Your task to perform on an android device: uninstall "Facebook" Image 0: 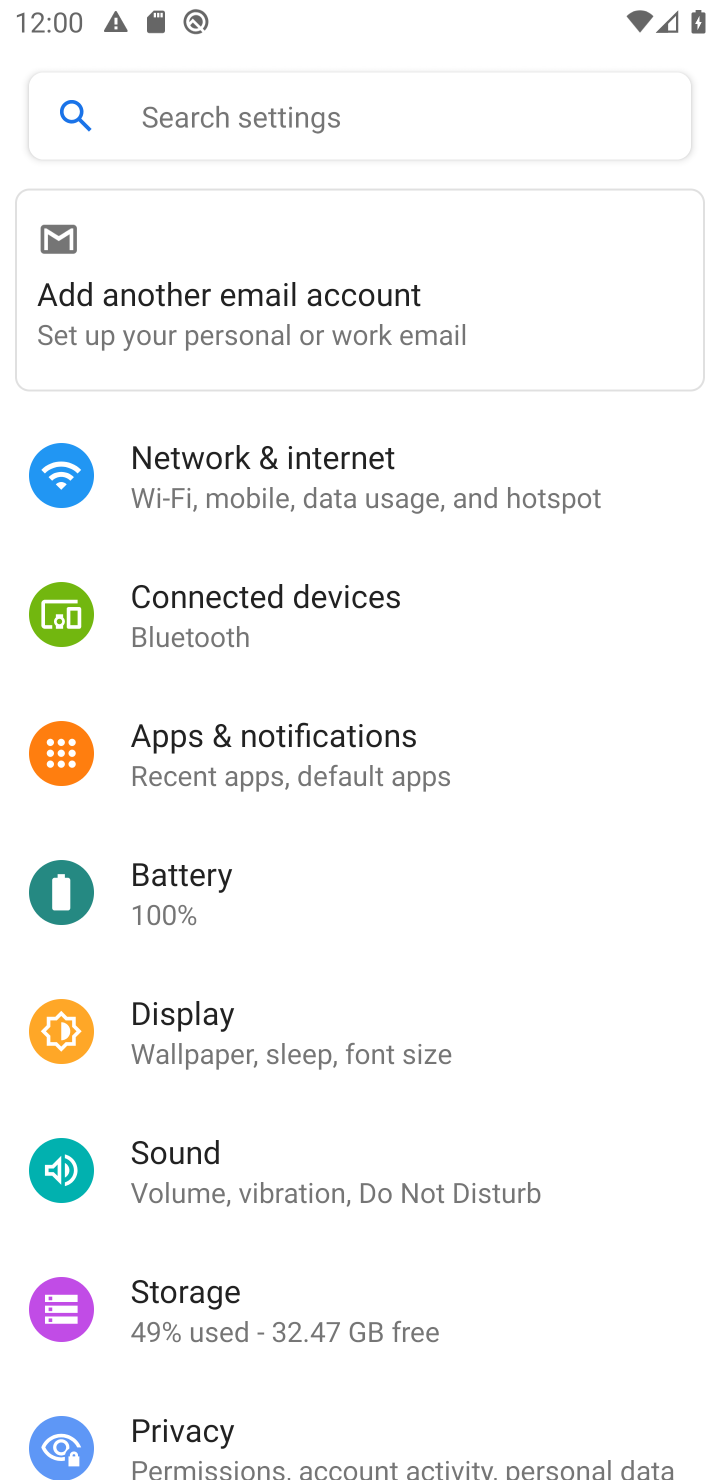
Step 0: press home button
Your task to perform on an android device: uninstall "Facebook" Image 1: 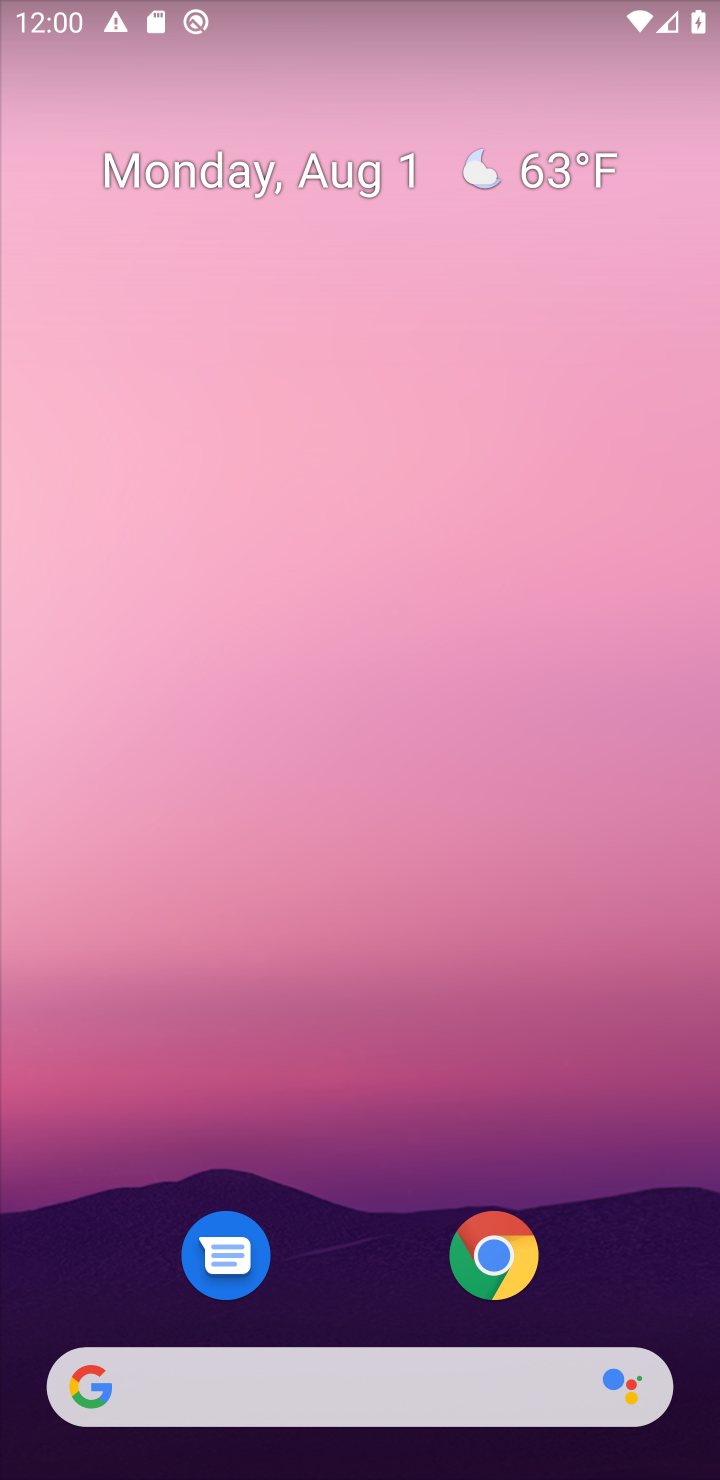
Step 1: drag from (534, 1066) to (485, 1)
Your task to perform on an android device: uninstall "Facebook" Image 2: 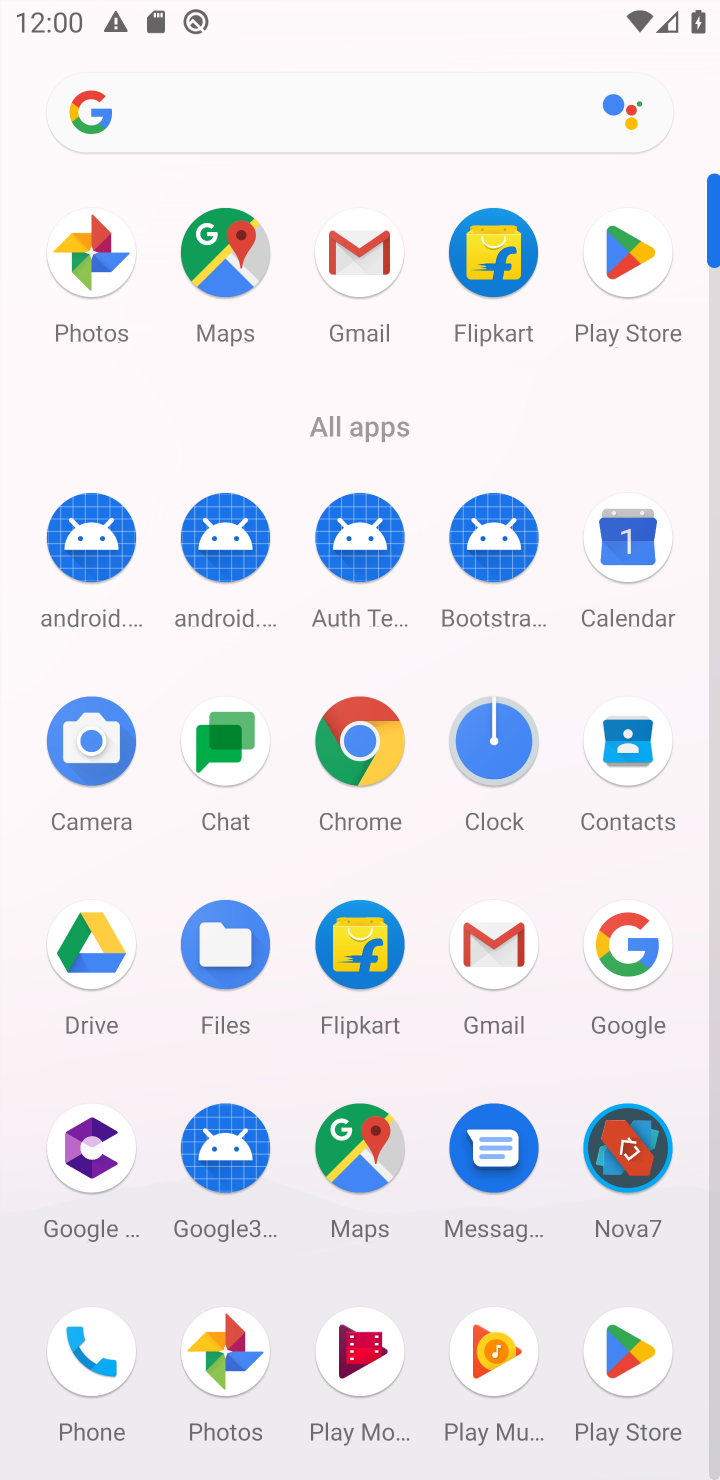
Step 2: click (628, 269)
Your task to perform on an android device: uninstall "Facebook" Image 3: 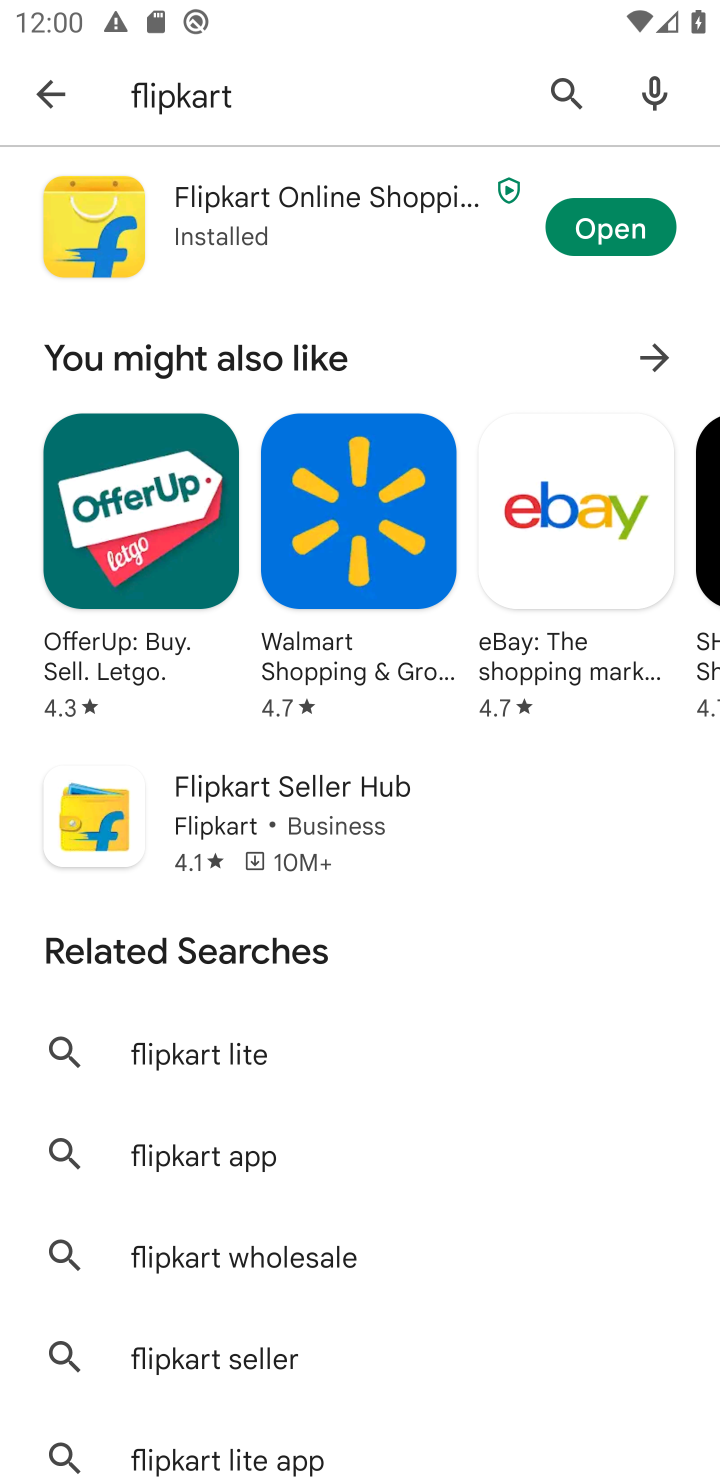
Step 3: click (573, 88)
Your task to perform on an android device: uninstall "Facebook" Image 4: 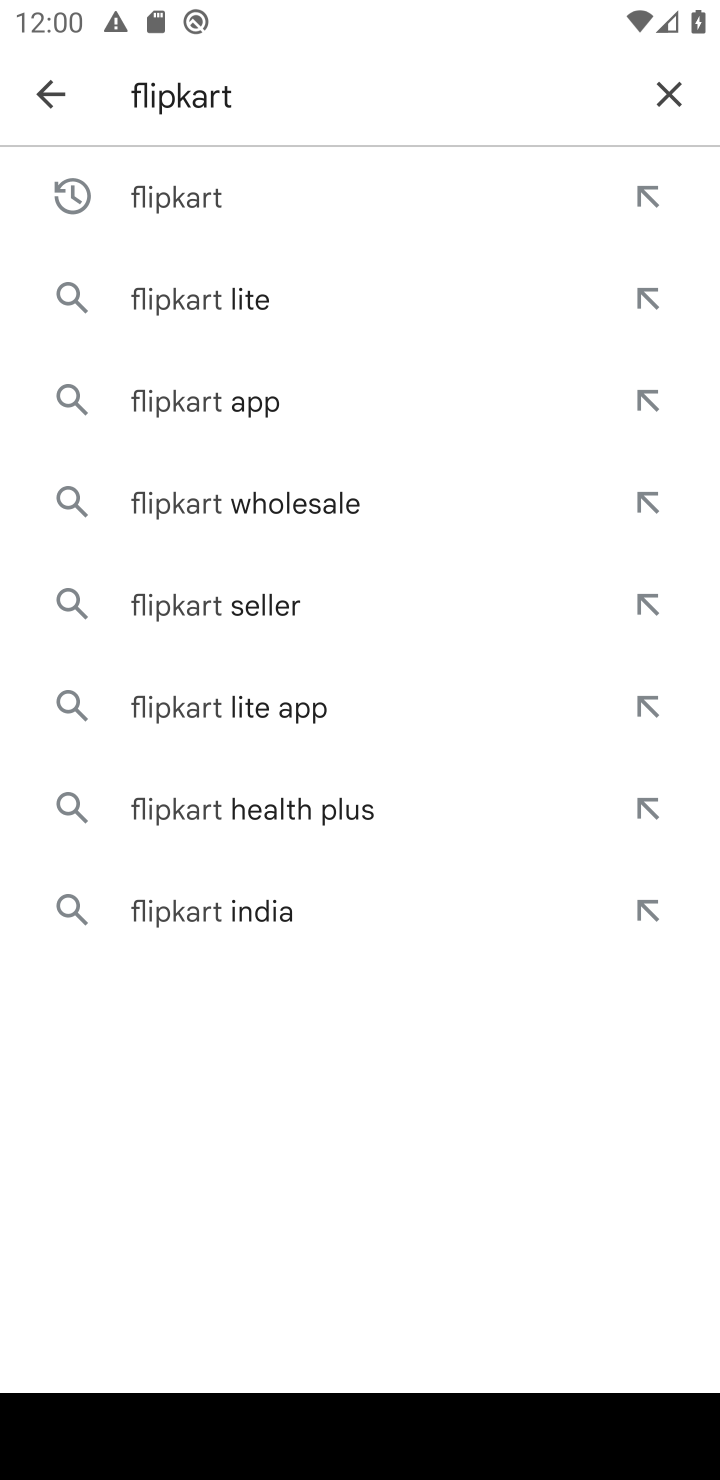
Step 4: click (674, 105)
Your task to perform on an android device: uninstall "Facebook" Image 5: 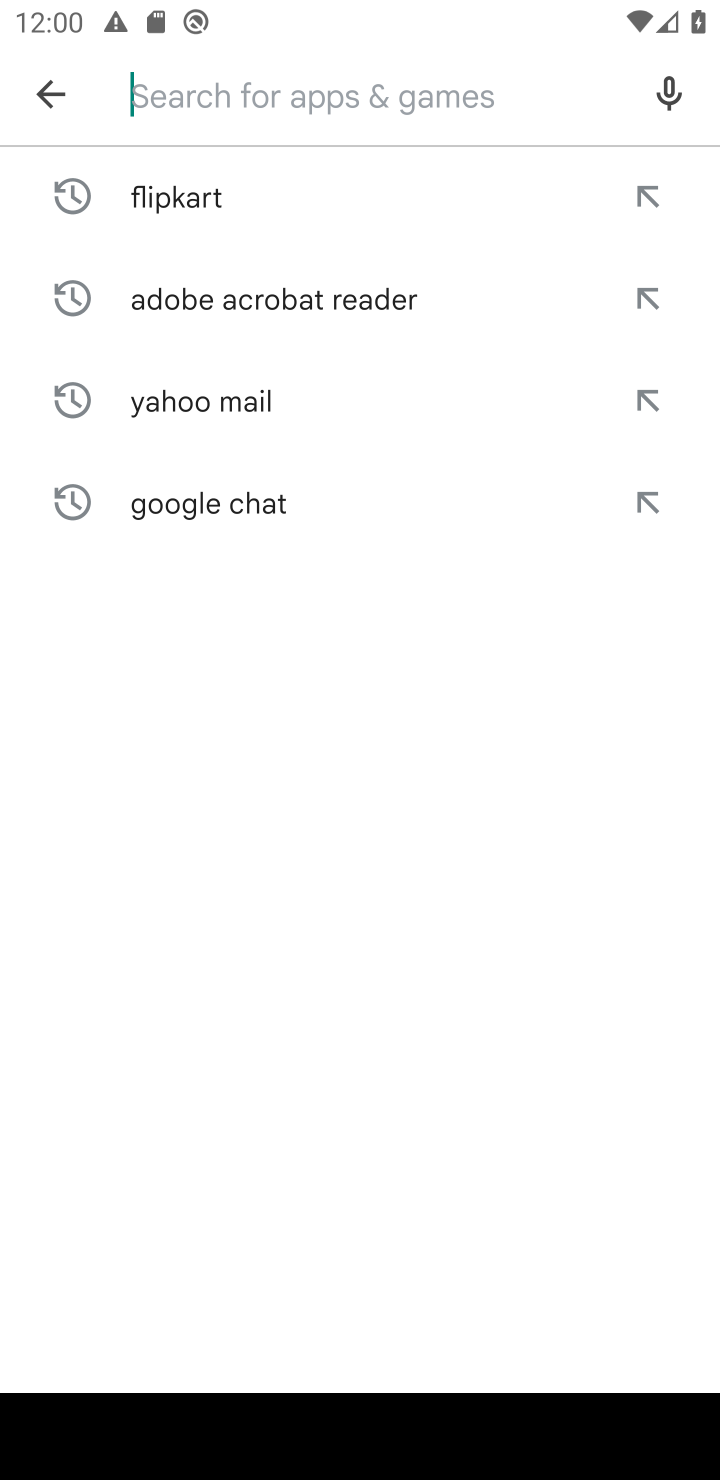
Step 5: type "facebook"
Your task to perform on an android device: uninstall "Facebook" Image 6: 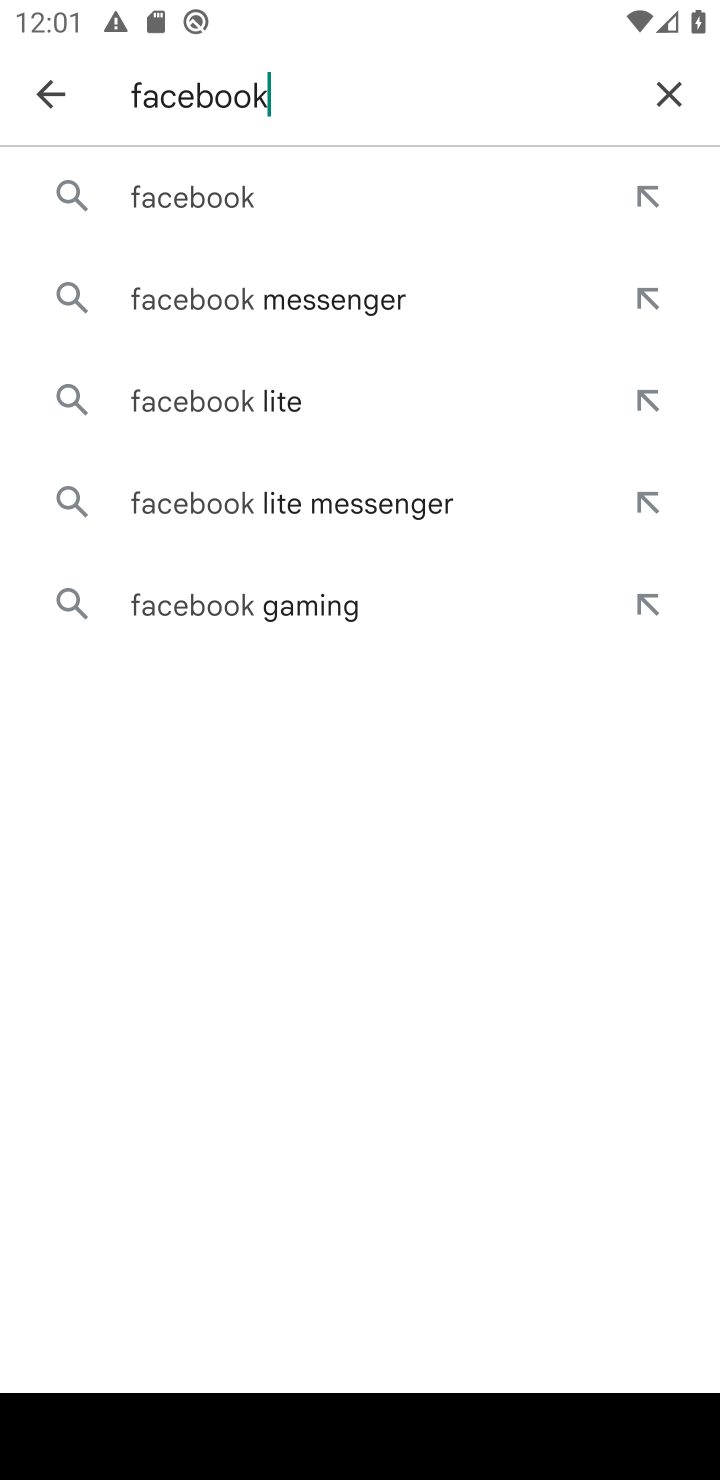
Step 6: click (338, 182)
Your task to perform on an android device: uninstall "Facebook" Image 7: 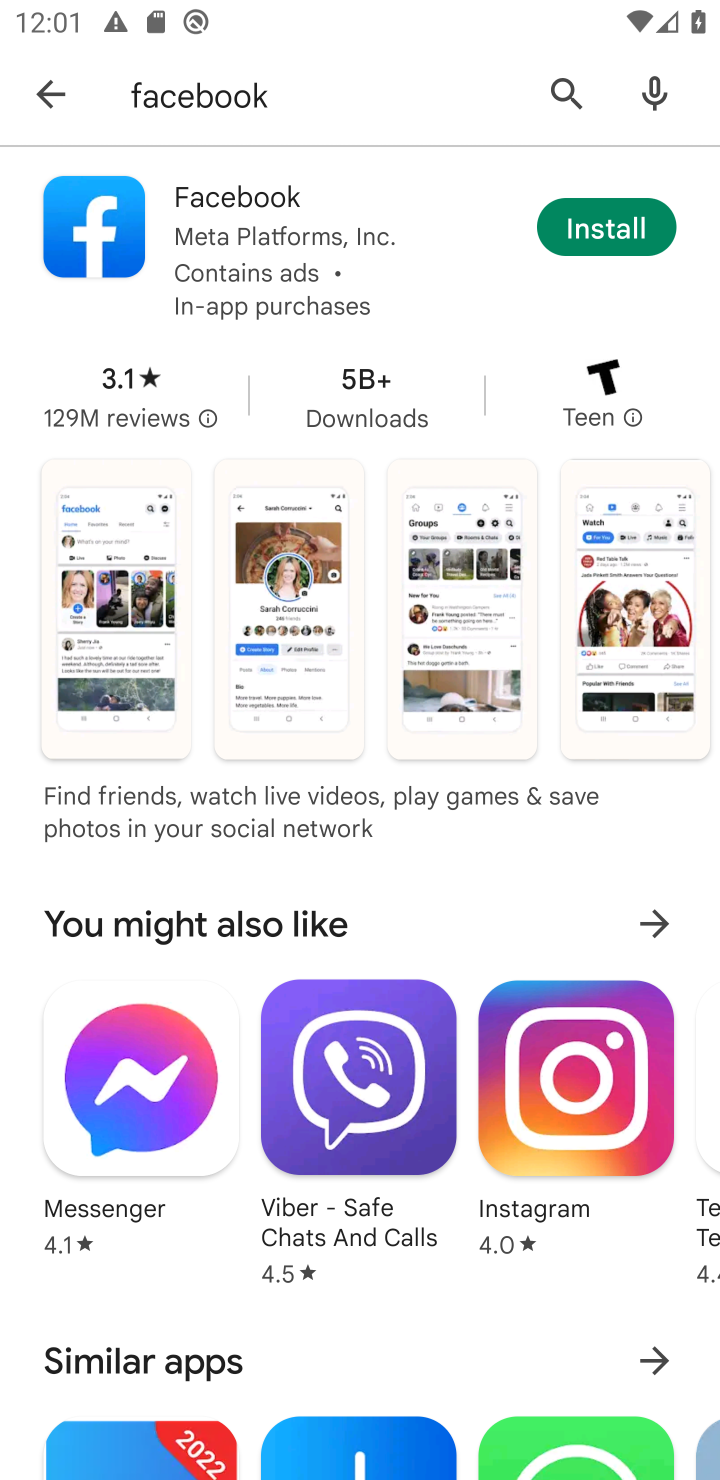
Step 7: task complete